Your task to perform on an android device: Go to Yahoo.com Image 0: 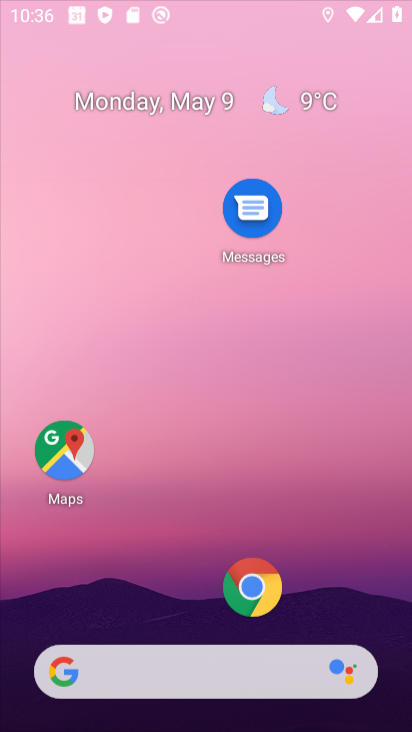
Step 0: click (216, 170)
Your task to perform on an android device: Go to Yahoo.com Image 1: 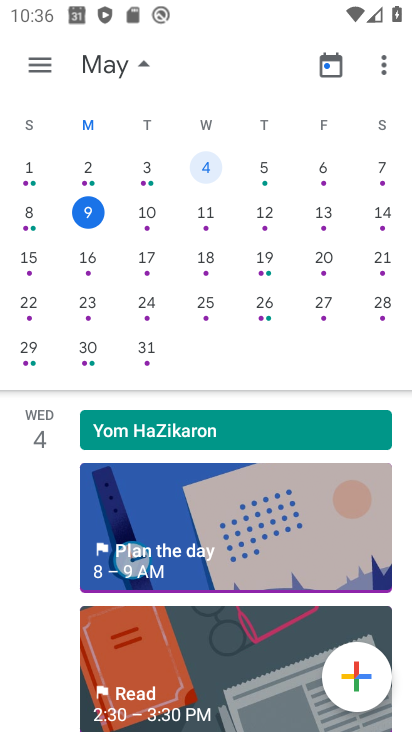
Step 1: drag from (227, 621) to (243, 287)
Your task to perform on an android device: Go to Yahoo.com Image 2: 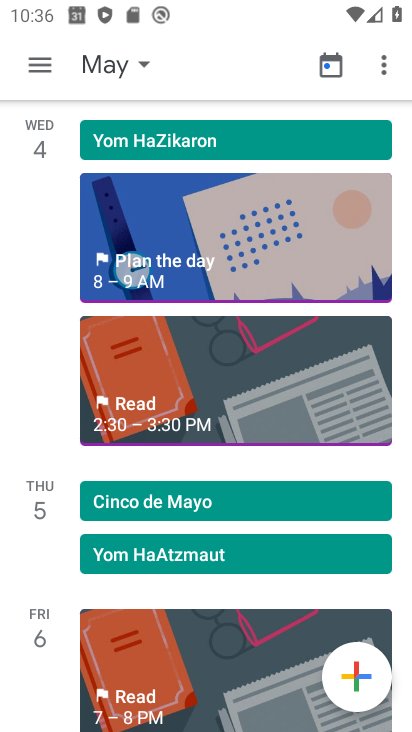
Step 2: drag from (227, 679) to (245, 273)
Your task to perform on an android device: Go to Yahoo.com Image 3: 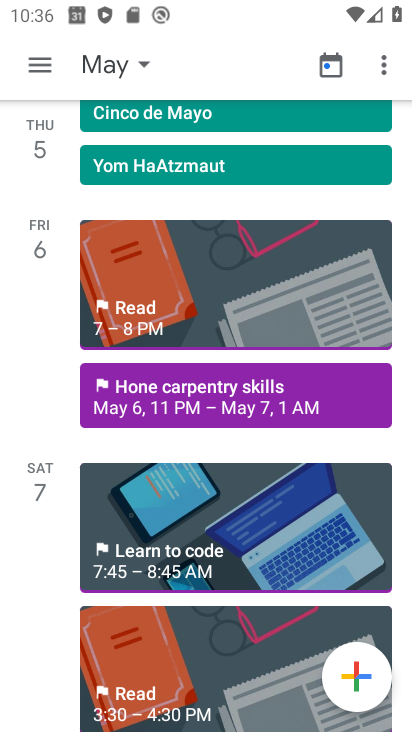
Step 3: press home button
Your task to perform on an android device: Go to Yahoo.com Image 4: 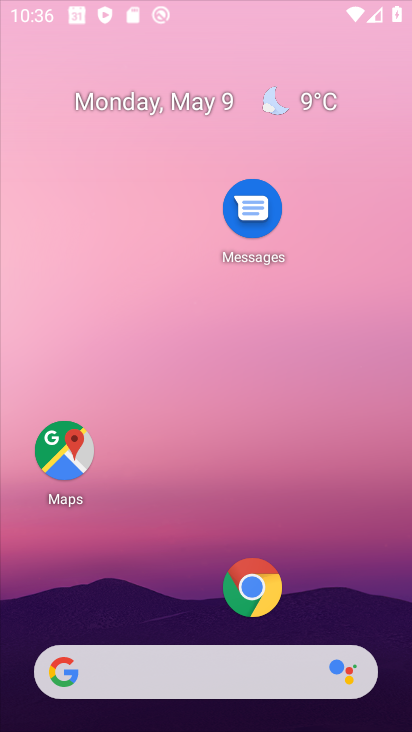
Step 4: drag from (191, 636) to (267, 194)
Your task to perform on an android device: Go to Yahoo.com Image 5: 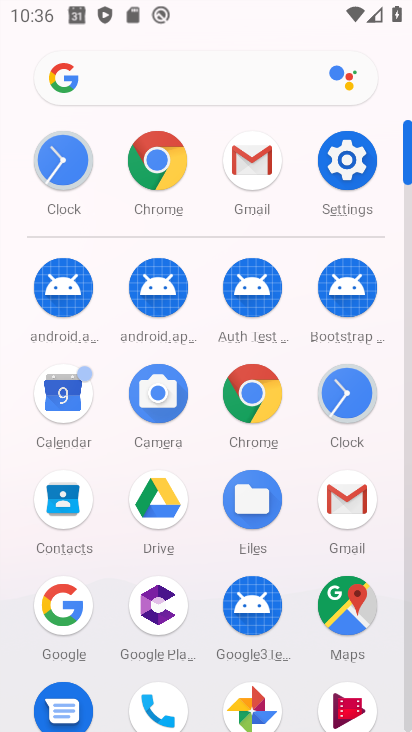
Step 5: click (247, 57)
Your task to perform on an android device: Go to Yahoo.com Image 6: 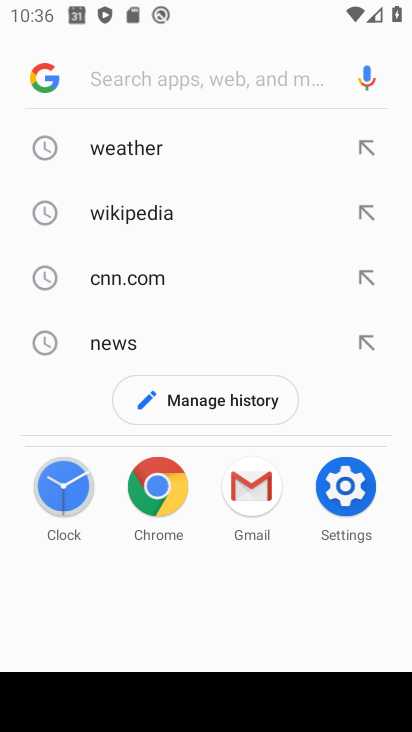
Step 6: type "yahoo"
Your task to perform on an android device: Go to Yahoo.com Image 7: 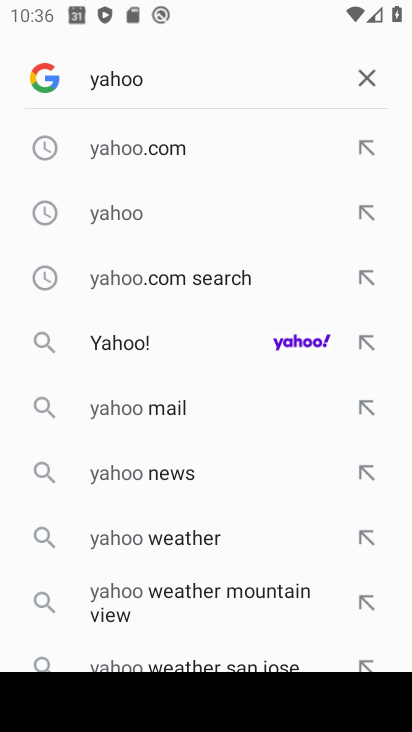
Step 7: click (162, 143)
Your task to perform on an android device: Go to Yahoo.com Image 8: 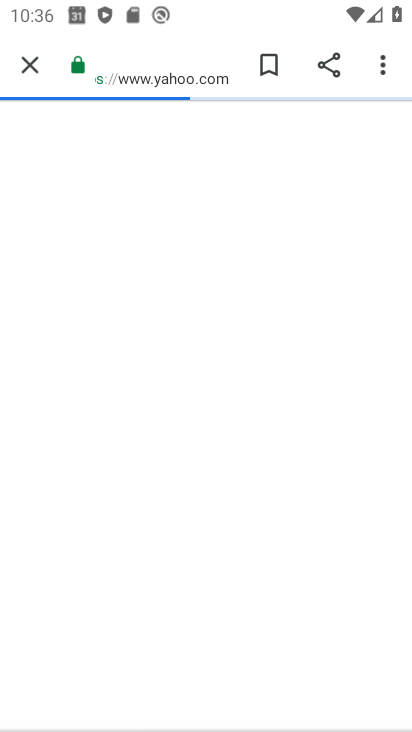
Step 8: task complete